Your task to perform on an android device: turn off javascript in the chrome app Image 0: 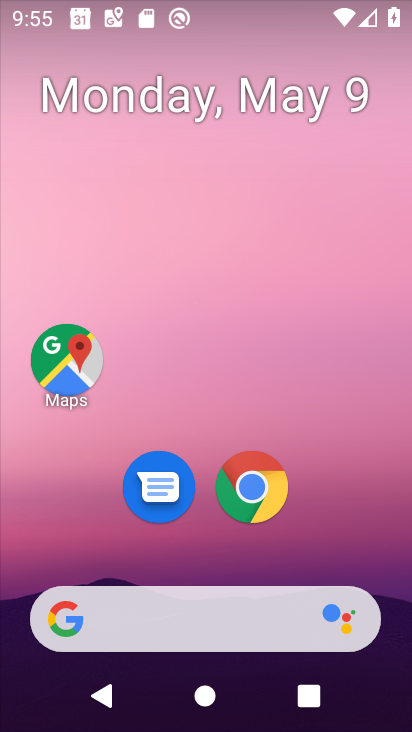
Step 0: drag from (332, 509) to (289, 4)
Your task to perform on an android device: turn off javascript in the chrome app Image 1: 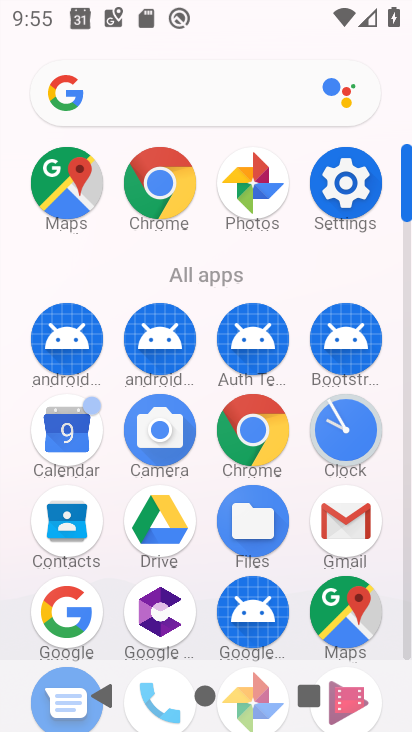
Step 1: drag from (5, 590) to (0, 295)
Your task to perform on an android device: turn off javascript in the chrome app Image 2: 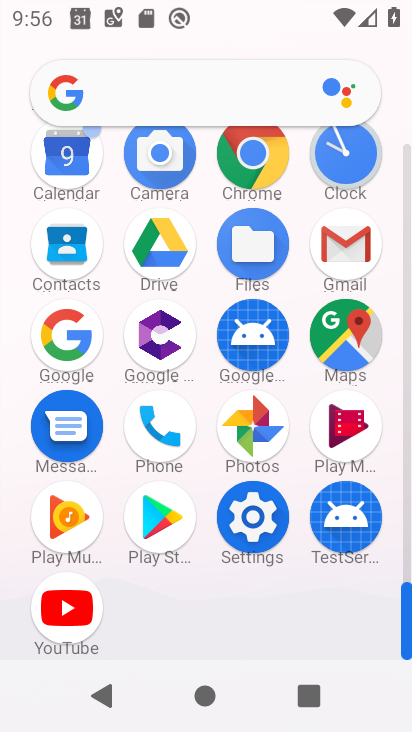
Step 2: click (250, 150)
Your task to perform on an android device: turn off javascript in the chrome app Image 3: 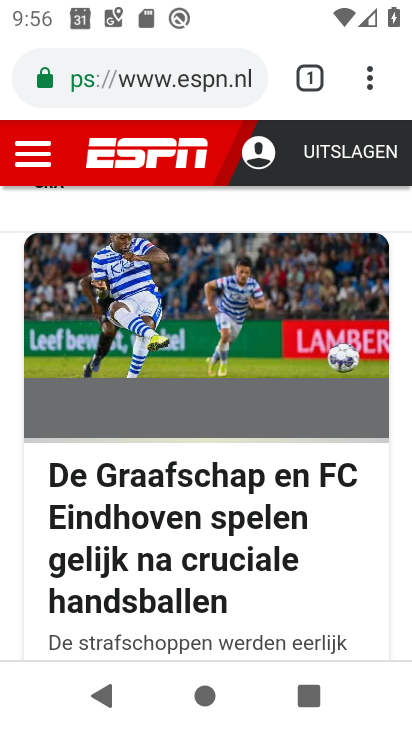
Step 3: drag from (362, 79) to (139, 548)
Your task to perform on an android device: turn off javascript in the chrome app Image 4: 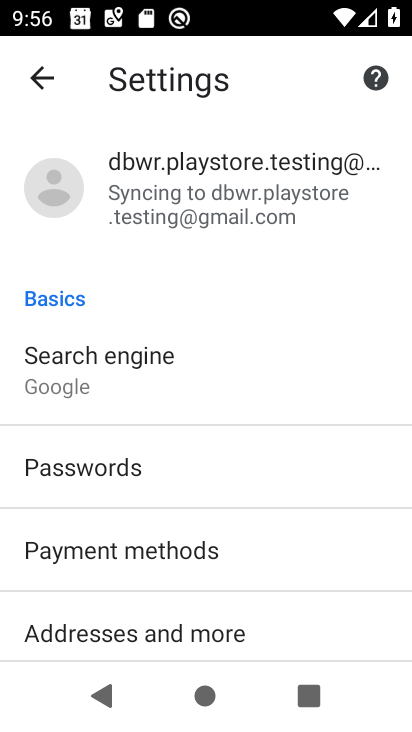
Step 4: drag from (233, 553) to (237, 172)
Your task to perform on an android device: turn off javascript in the chrome app Image 5: 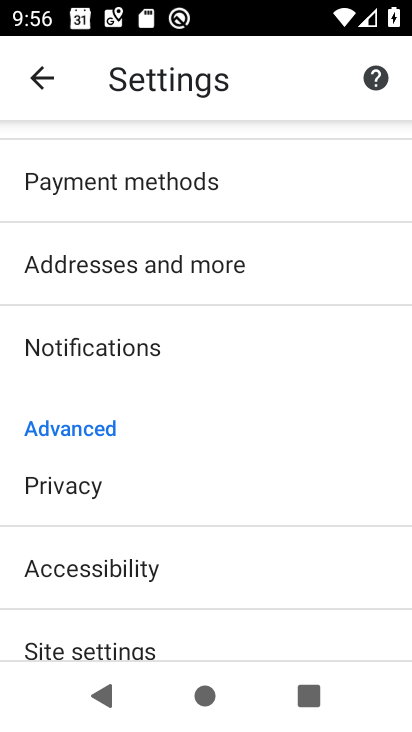
Step 5: drag from (219, 546) to (229, 160)
Your task to perform on an android device: turn off javascript in the chrome app Image 6: 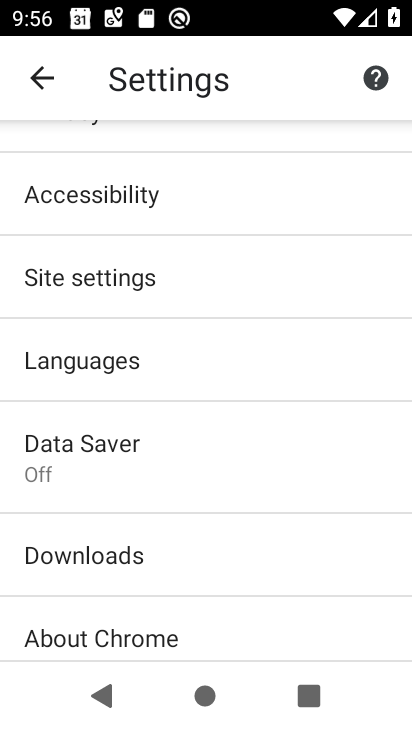
Step 6: drag from (156, 628) to (226, 171)
Your task to perform on an android device: turn off javascript in the chrome app Image 7: 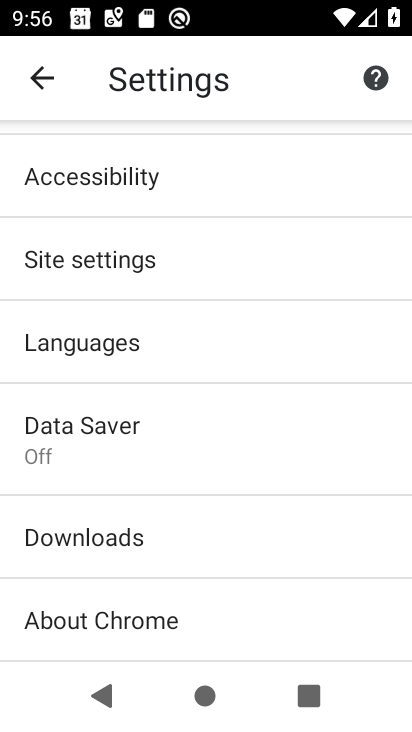
Step 7: click (171, 271)
Your task to perform on an android device: turn off javascript in the chrome app Image 8: 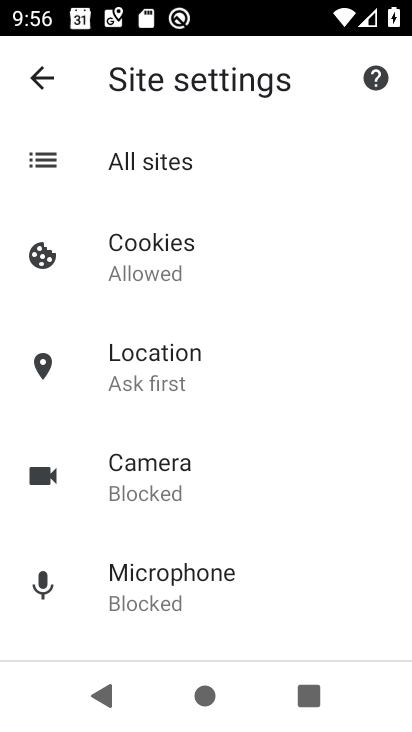
Step 8: drag from (297, 513) to (296, 193)
Your task to perform on an android device: turn off javascript in the chrome app Image 9: 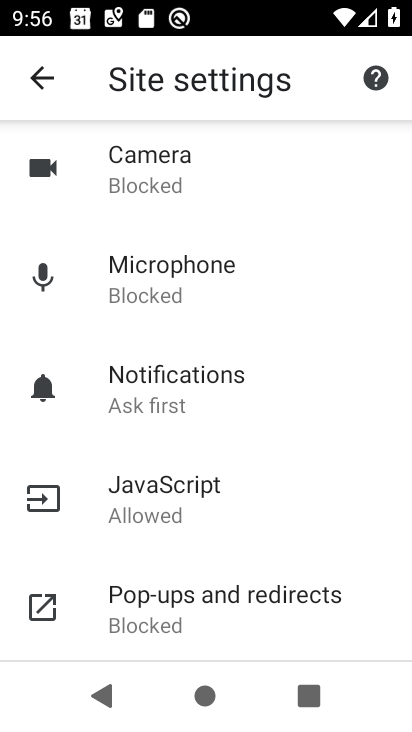
Step 9: click (177, 500)
Your task to perform on an android device: turn off javascript in the chrome app Image 10: 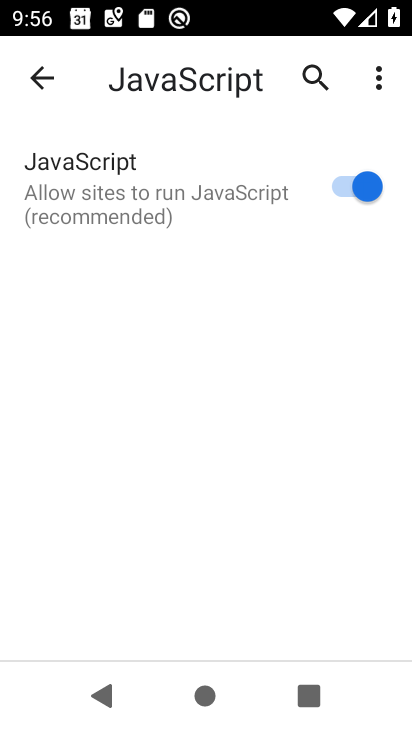
Step 10: click (345, 184)
Your task to perform on an android device: turn off javascript in the chrome app Image 11: 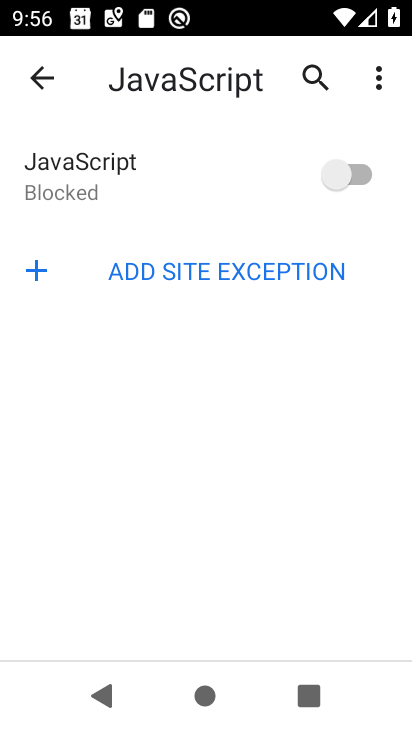
Step 11: task complete